Your task to perform on an android device: What's on my calendar tomorrow? Image 0: 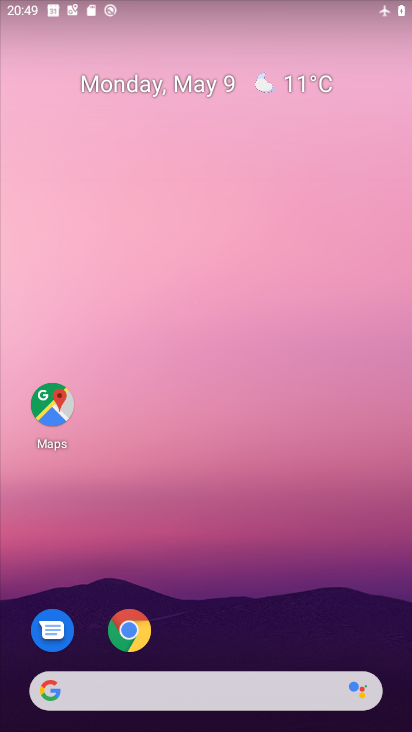
Step 0: drag from (189, 602) to (186, 231)
Your task to perform on an android device: What's on my calendar tomorrow? Image 1: 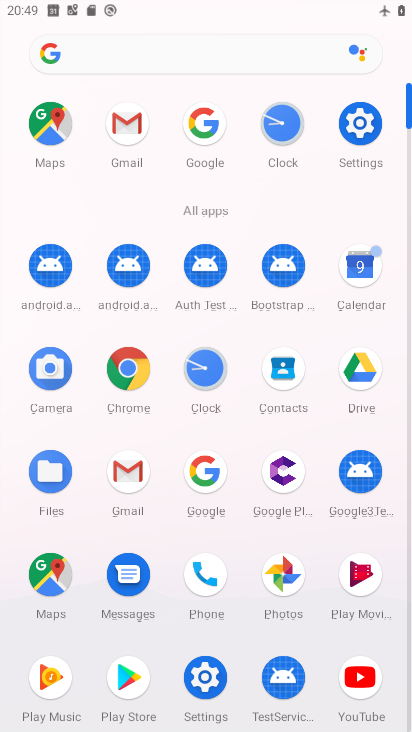
Step 1: click (366, 256)
Your task to perform on an android device: What's on my calendar tomorrow? Image 2: 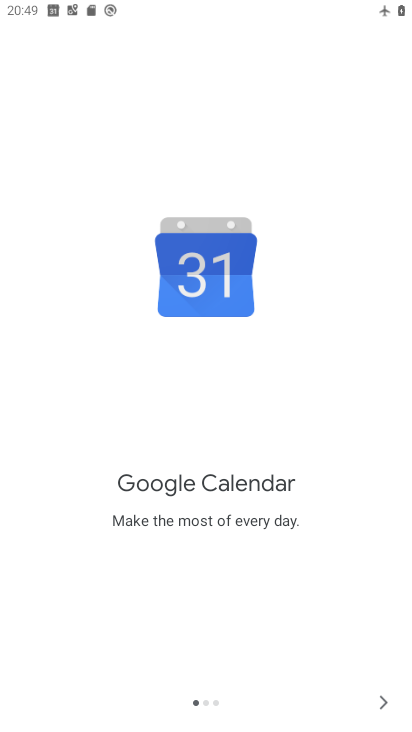
Step 2: click (373, 704)
Your task to perform on an android device: What's on my calendar tomorrow? Image 3: 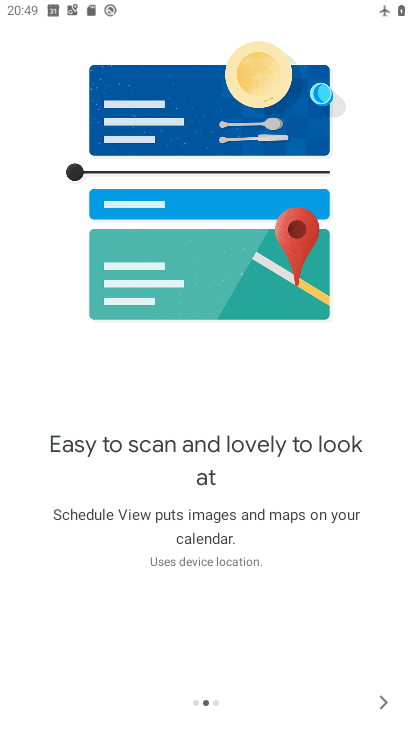
Step 3: click (376, 700)
Your task to perform on an android device: What's on my calendar tomorrow? Image 4: 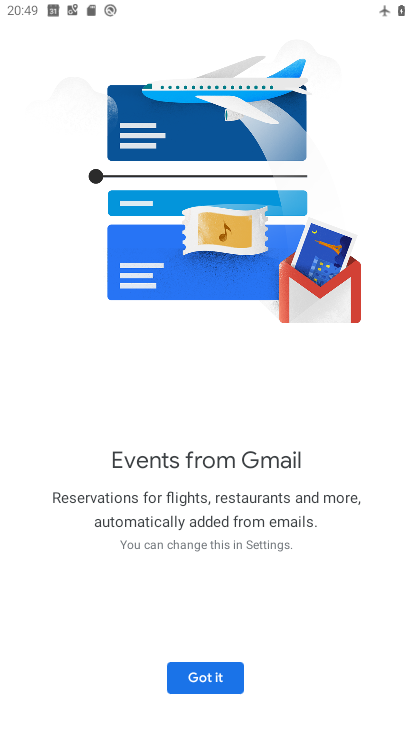
Step 4: click (211, 678)
Your task to perform on an android device: What's on my calendar tomorrow? Image 5: 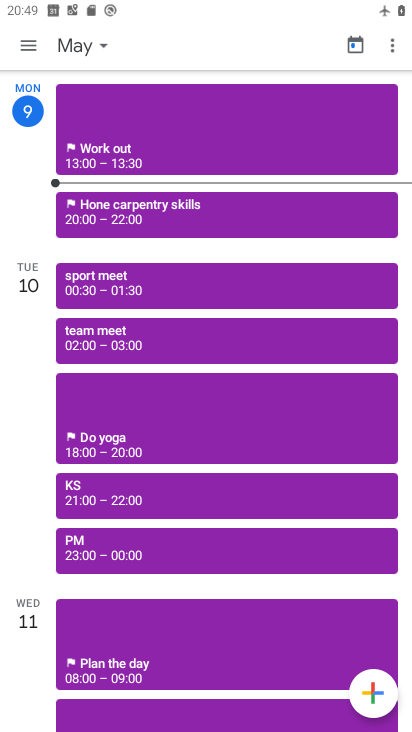
Step 5: click (52, 40)
Your task to perform on an android device: What's on my calendar tomorrow? Image 6: 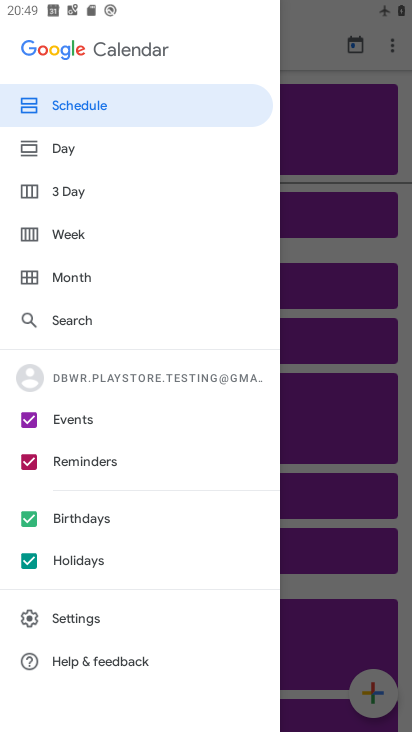
Step 6: click (325, 32)
Your task to perform on an android device: What's on my calendar tomorrow? Image 7: 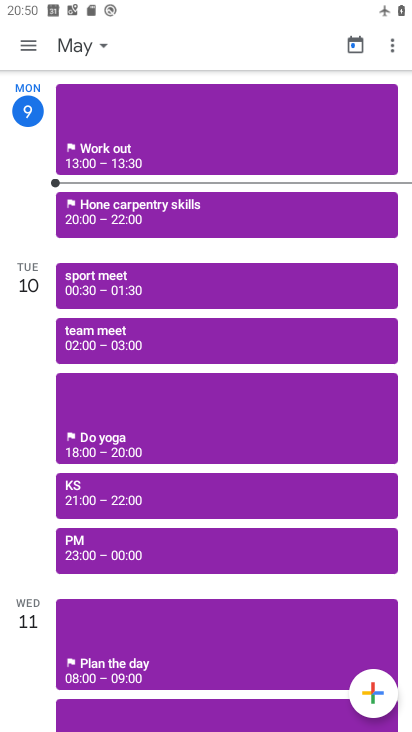
Step 7: click (99, 42)
Your task to perform on an android device: What's on my calendar tomorrow? Image 8: 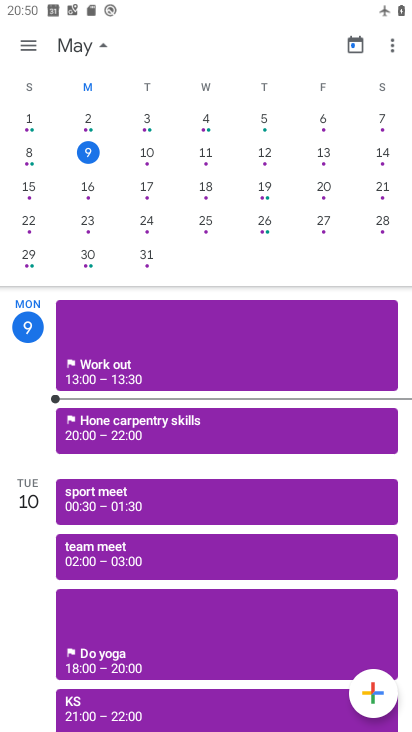
Step 8: click (141, 159)
Your task to perform on an android device: What's on my calendar tomorrow? Image 9: 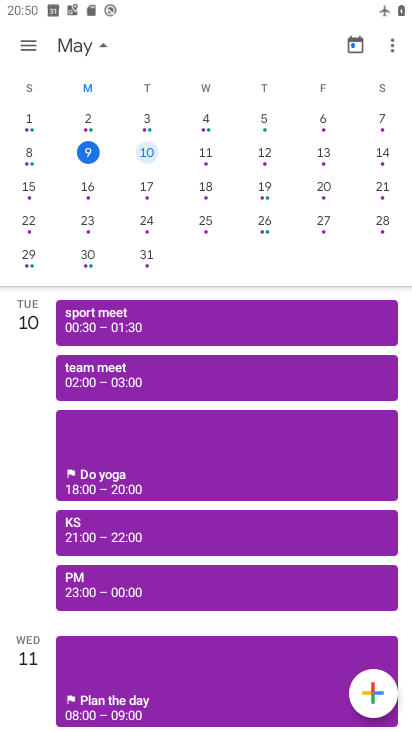
Step 9: task complete